Your task to perform on an android device: Go to CNN.com Image 0: 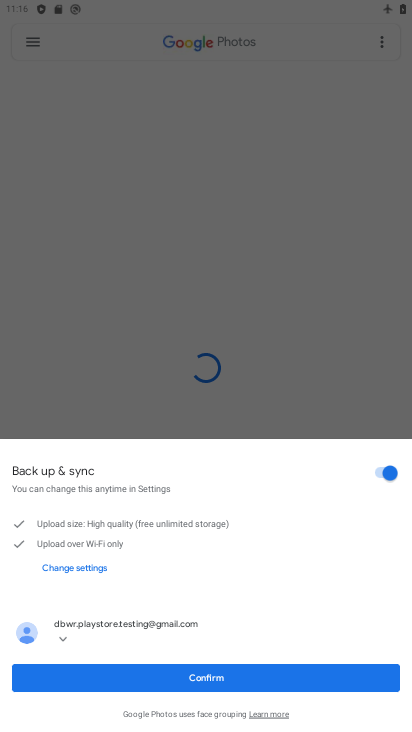
Step 0: press home button
Your task to perform on an android device: Go to CNN.com Image 1: 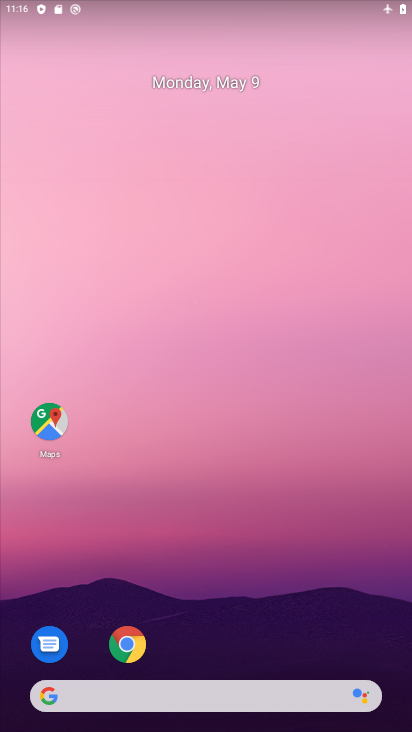
Step 1: click (140, 636)
Your task to perform on an android device: Go to CNN.com Image 2: 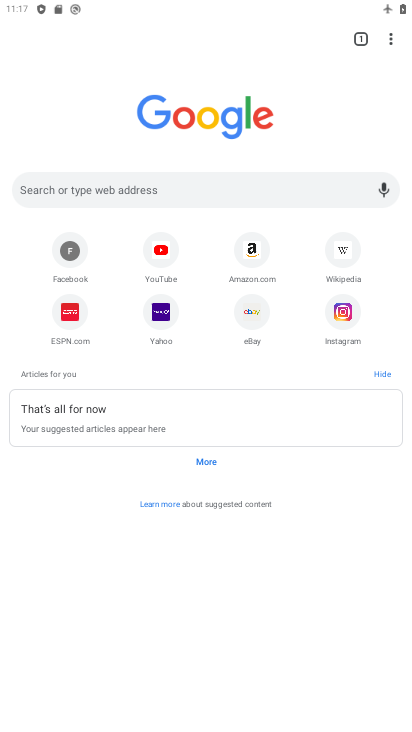
Step 2: click (162, 188)
Your task to perform on an android device: Go to CNN.com Image 3: 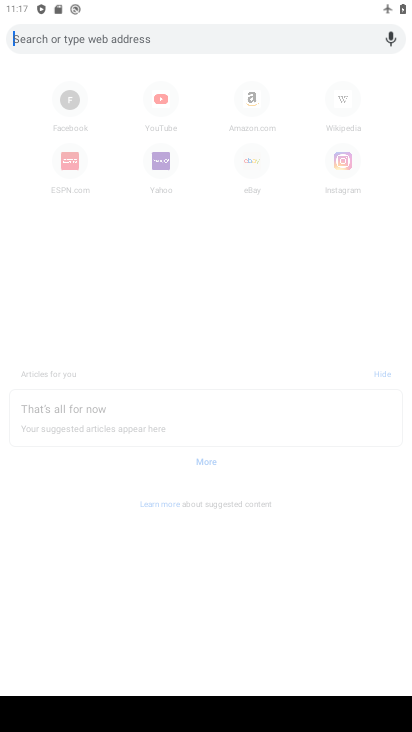
Step 3: type "CNN.com"
Your task to perform on an android device: Go to CNN.com Image 4: 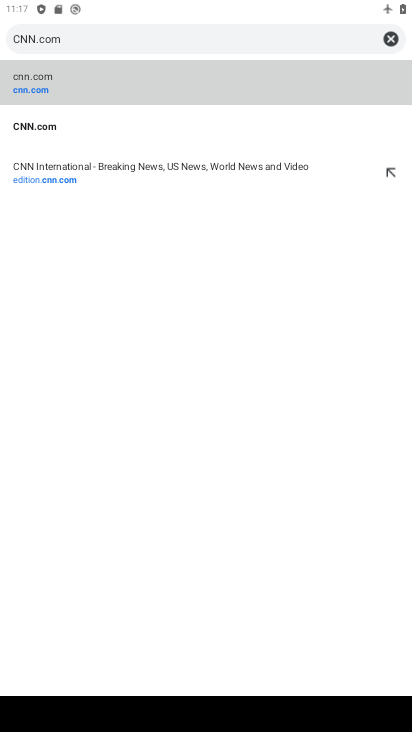
Step 4: click (49, 86)
Your task to perform on an android device: Go to CNN.com Image 5: 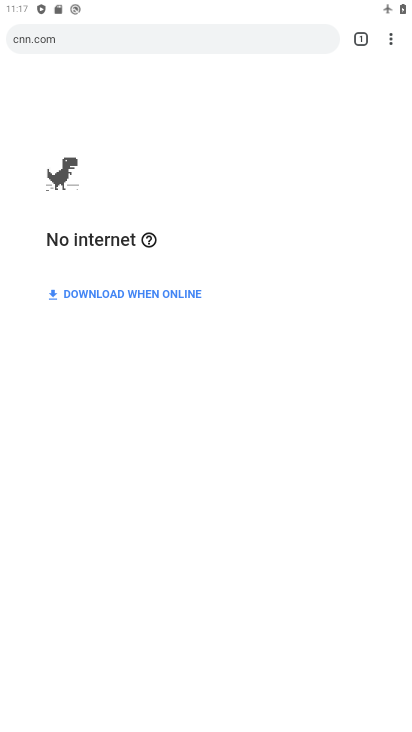
Step 5: task complete